Your task to perform on an android device: delete location history Image 0: 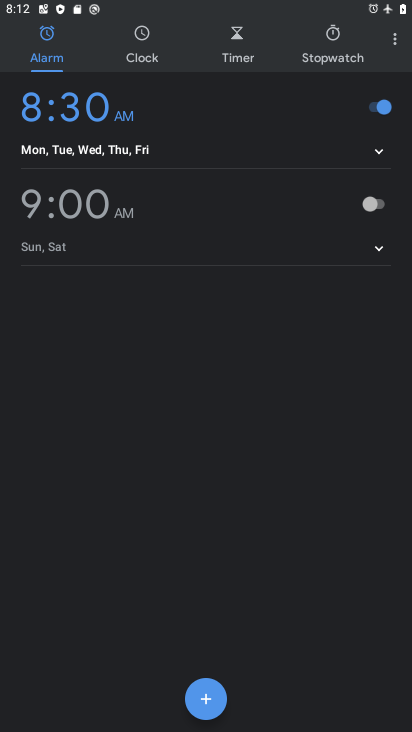
Step 0: press home button
Your task to perform on an android device: delete location history Image 1: 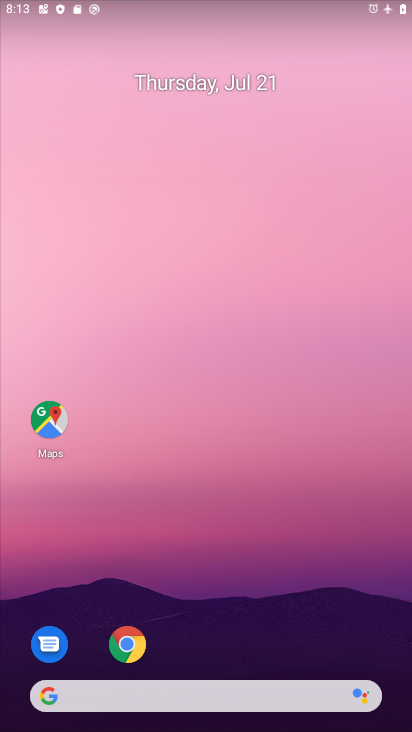
Step 1: click (52, 409)
Your task to perform on an android device: delete location history Image 2: 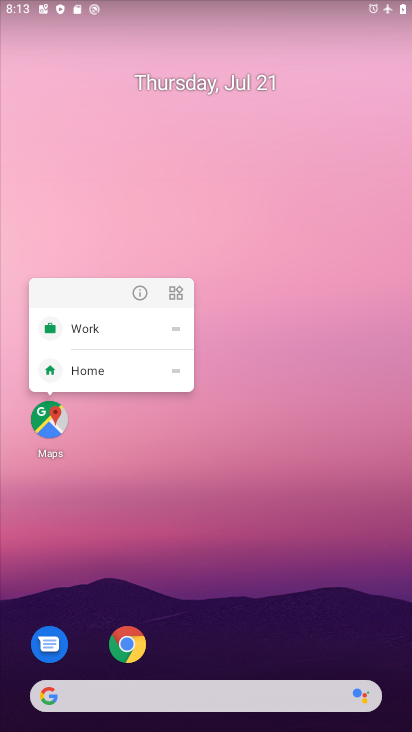
Step 2: click (50, 427)
Your task to perform on an android device: delete location history Image 3: 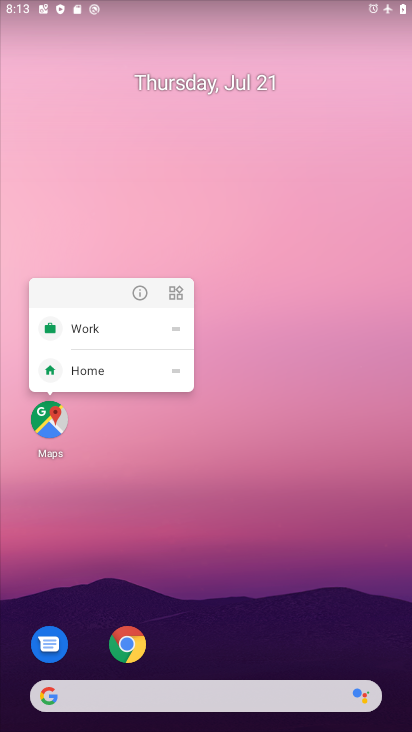
Step 3: click (50, 427)
Your task to perform on an android device: delete location history Image 4: 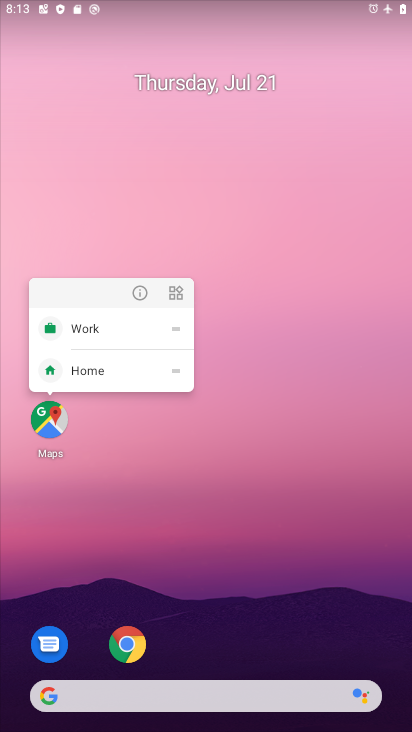
Step 4: click (50, 427)
Your task to perform on an android device: delete location history Image 5: 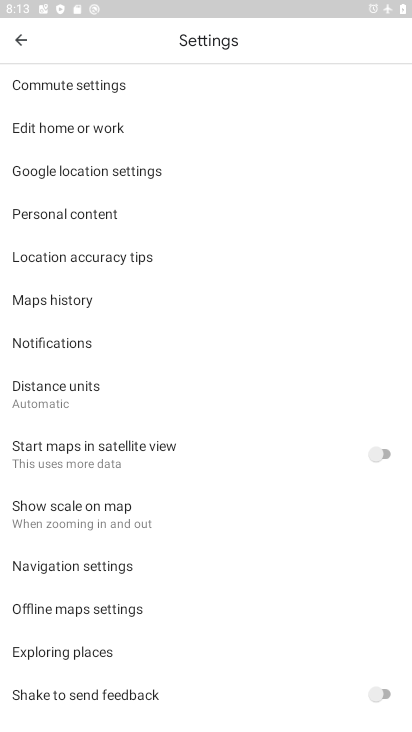
Step 5: click (21, 28)
Your task to perform on an android device: delete location history Image 6: 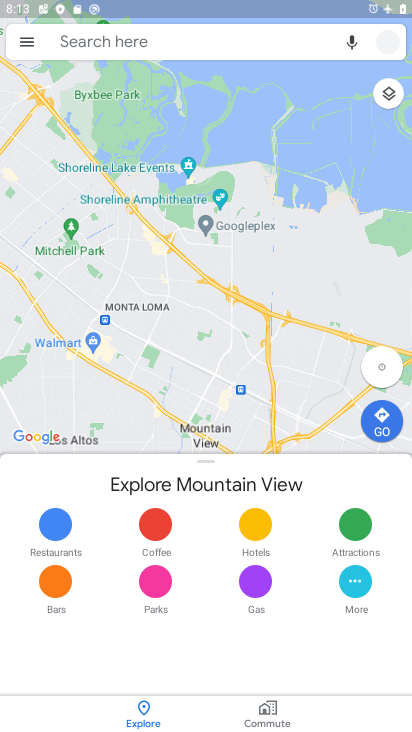
Step 6: click (20, 37)
Your task to perform on an android device: delete location history Image 7: 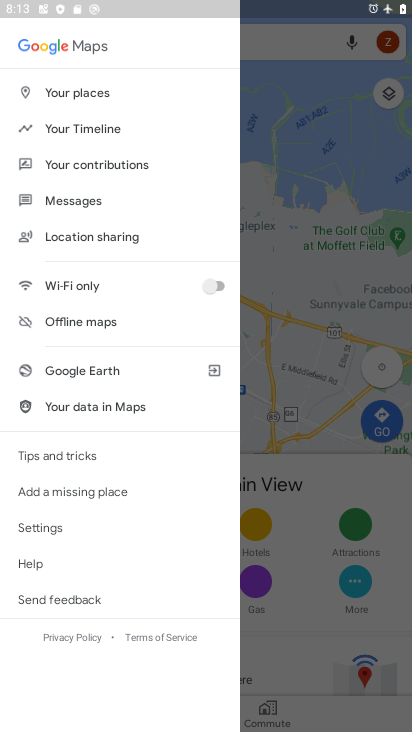
Step 7: click (72, 122)
Your task to perform on an android device: delete location history Image 8: 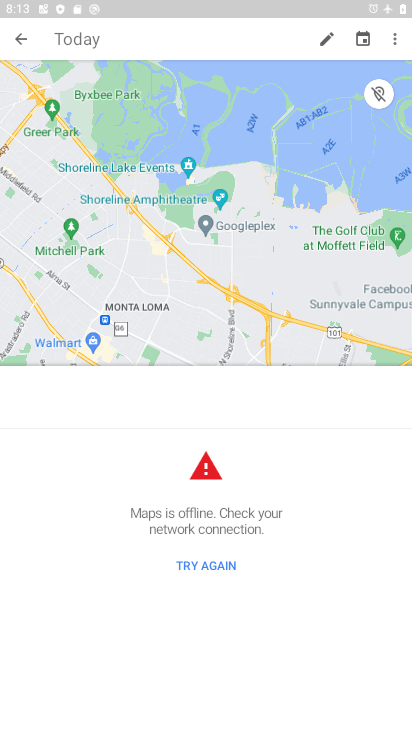
Step 8: click (393, 34)
Your task to perform on an android device: delete location history Image 9: 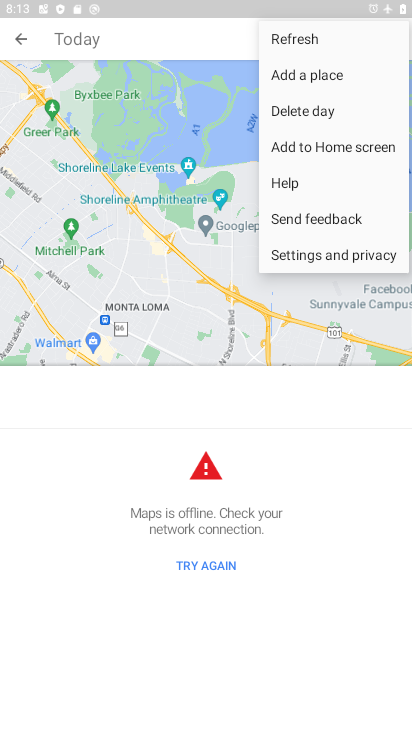
Step 9: click (344, 246)
Your task to perform on an android device: delete location history Image 10: 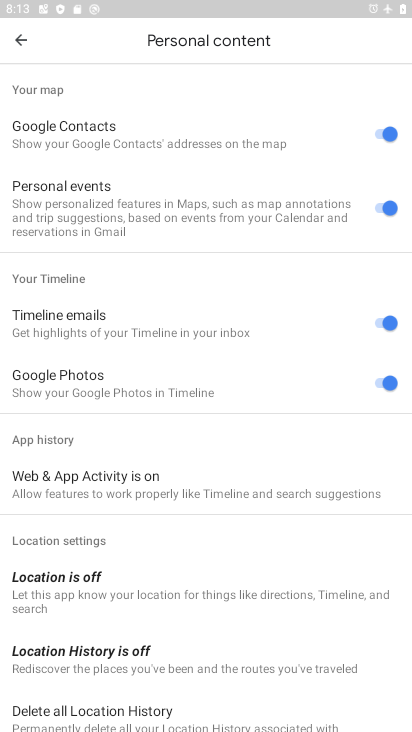
Step 10: drag from (124, 678) to (118, 413)
Your task to perform on an android device: delete location history Image 11: 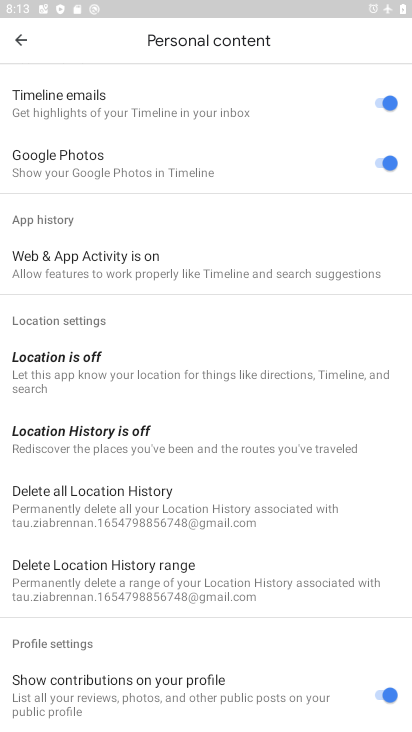
Step 11: click (117, 503)
Your task to perform on an android device: delete location history Image 12: 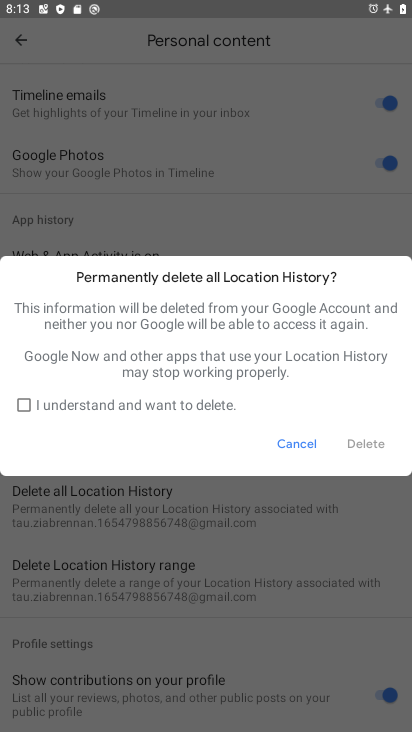
Step 12: click (28, 405)
Your task to perform on an android device: delete location history Image 13: 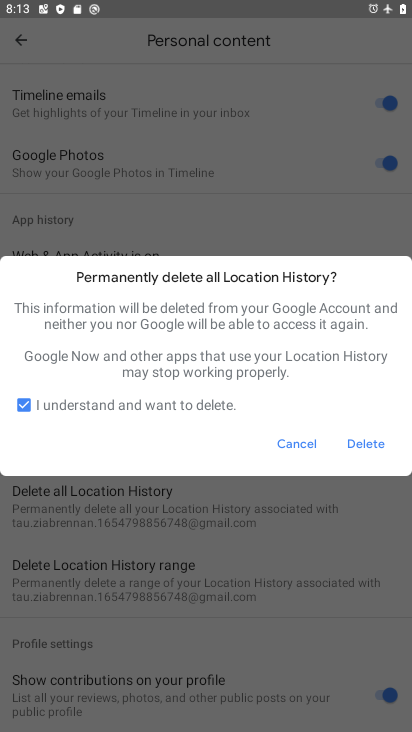
Step 13: click (370, 434)
Your task to perform on an android device: delete location history Image 14: 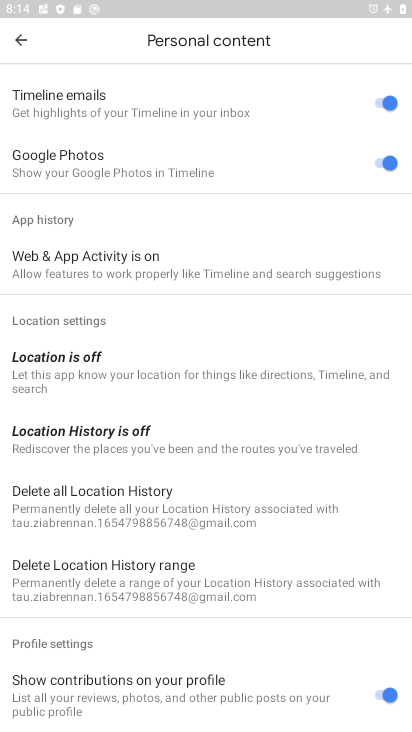
Step 14: task complete